Your task to perform on an android device: toggle show notifications on the lock screen Image 0: 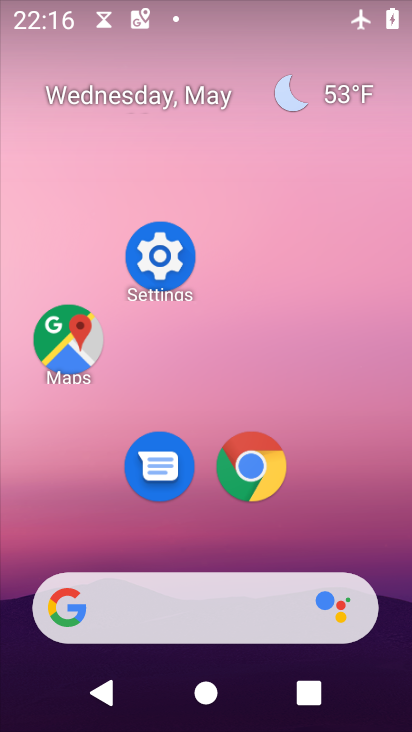
Step 0: drag from (219, 510) to (241, 124)
Your task to perform on an android device: toggle show notifications on the lock screen Image 1: 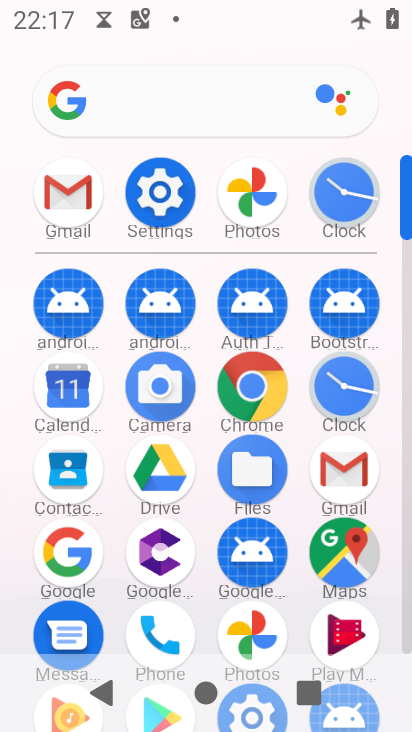
Step 1: click (166, 198)
Your task to perform on an android device: toggle show notifications on the lock screen Image 2: 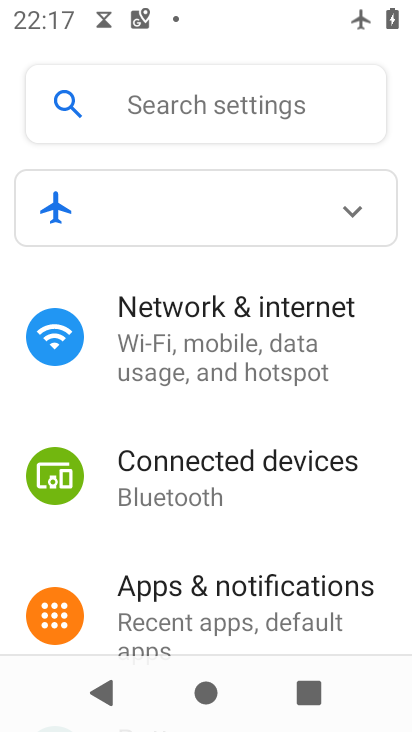
Step 2: click (233, 591)
Your task to perform on an android device: toggle show notifications on the lock screen Image 3: 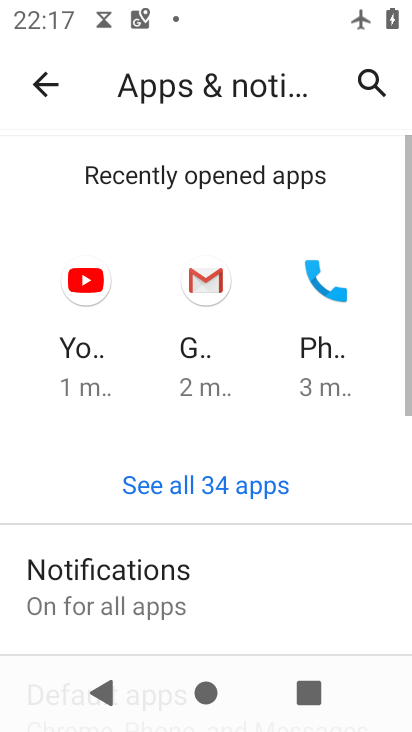
Step 3: drag from (202, 573) to (266, 238)
Your task to perform on an android device: toggle show notifications on the lock screen Image 4: 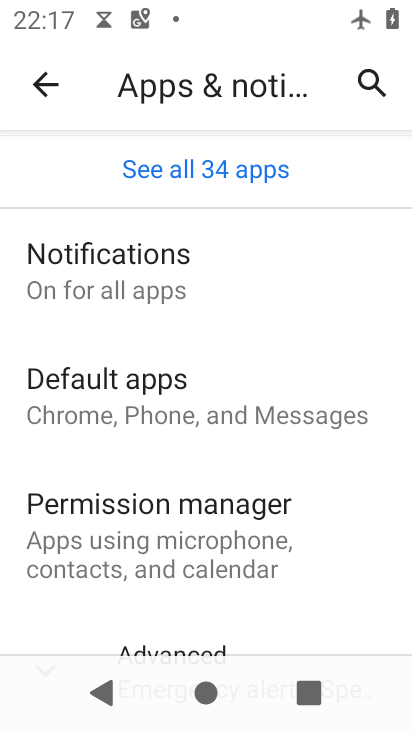
Step 4: click (178, 286)
Your task to perform on an android device: toggle show notifications on the lock screen Image 5: 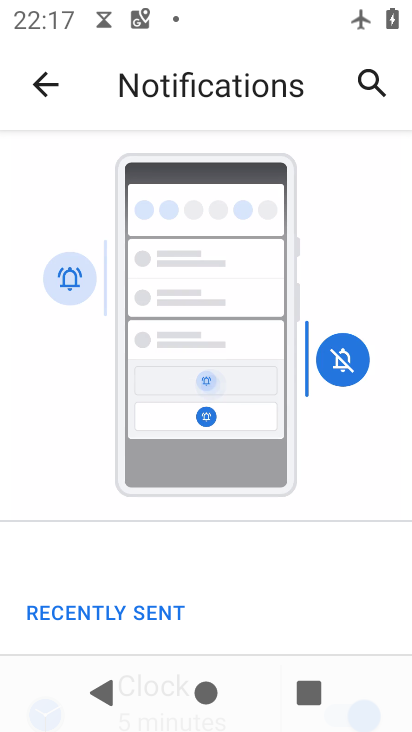
Step 5: drag from (221, 598) to (272, 270)
Your task to perform on an android device: toggle show notifications on the lock screen Image 6: 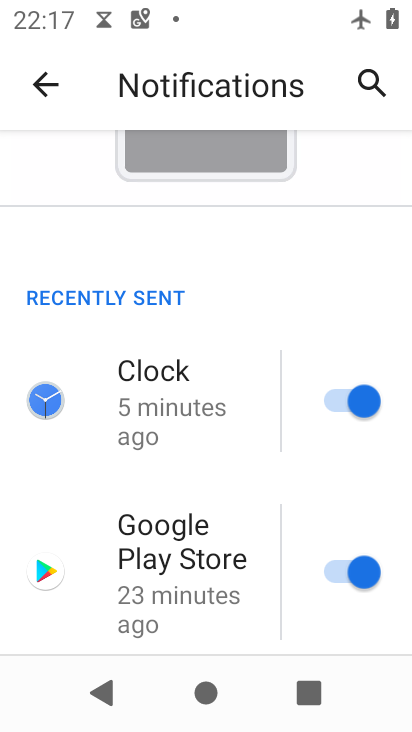
Step 6: drag from (233, 551) to (271, 214)
Your task to perform on an android device: toggle show notifications on the lock screen Image 7: 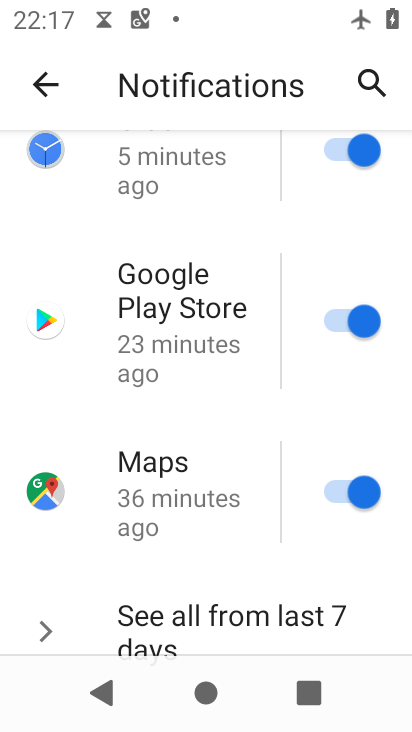
Step 7: drag from (219, 611) to (251, 195)
Your task to perform on an android device: toggle show notifications on the lock screen Image 8: 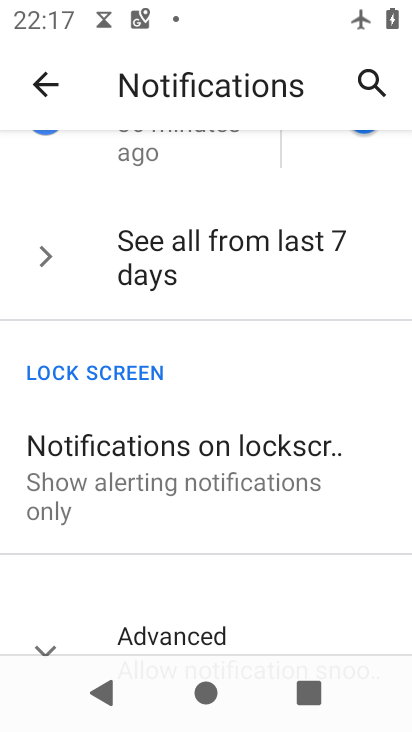
Step 8: click (205, 495)
Your task to perform on an android device: toggle show notifications on the lock screen Image 9: 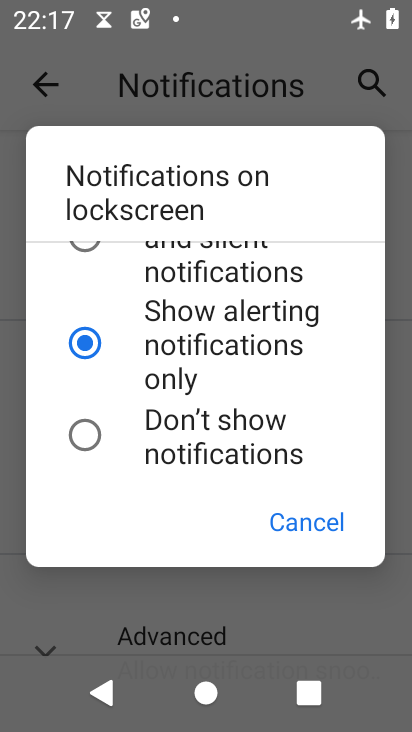
Step 9: drag from (169, 286) to (187, 477)
Your task to perform on an android device: toggle show notifications on the lock screen Image 10: 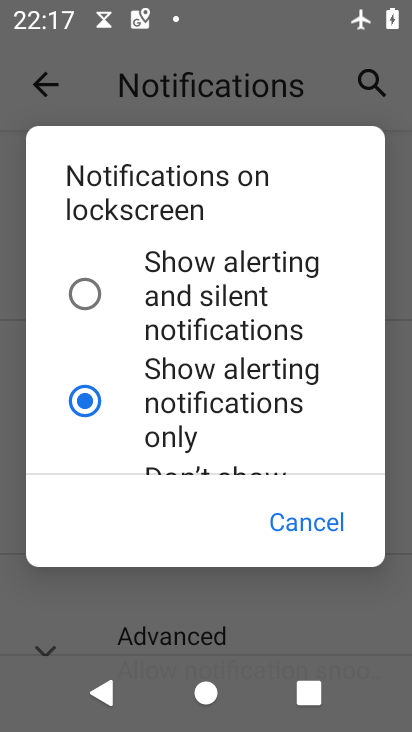
Step 10: click (163, 290)
Your task to perform on an android device: toggle show notifications on the lock screen Image 11: 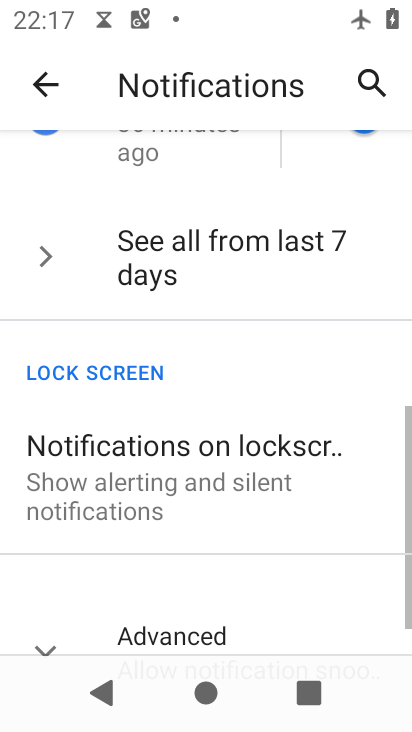
Step 11: task complete